Your task to perform on an android device: What's the news in Nepal? Image 0: 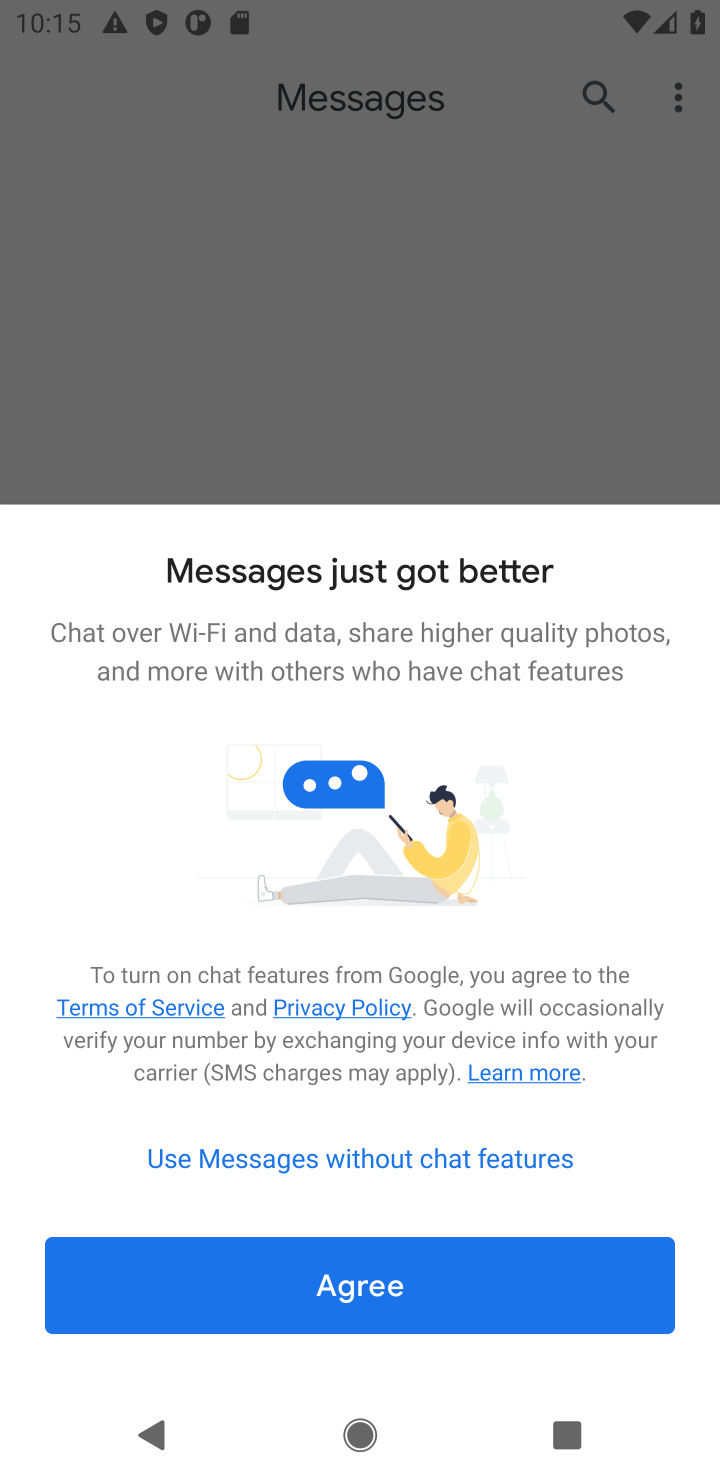
Step 0: press home button
Your task to perform on an android device: What's the news in Nepal? Image 1: 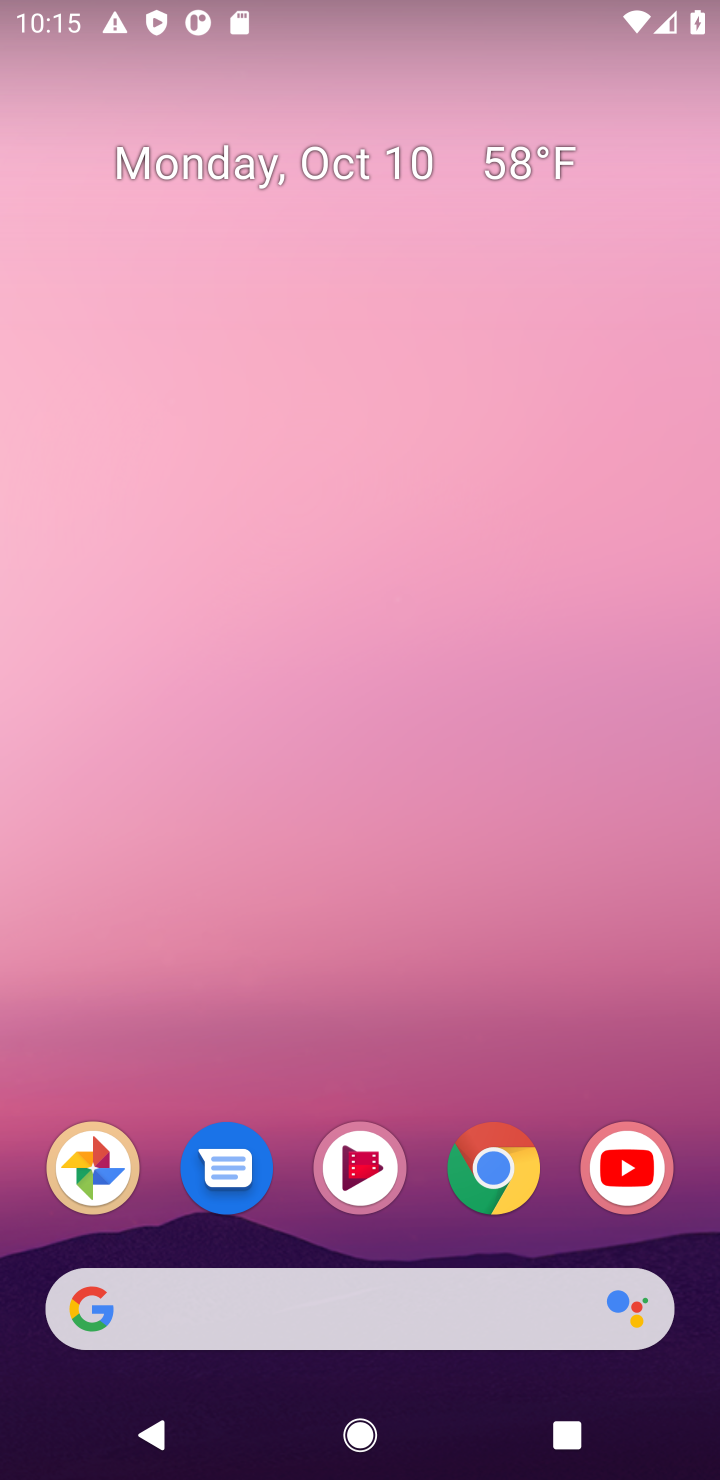
Step 1: click (268, 1326)
Your task to perform on an android device: What's the news in Nepal? Image 2: 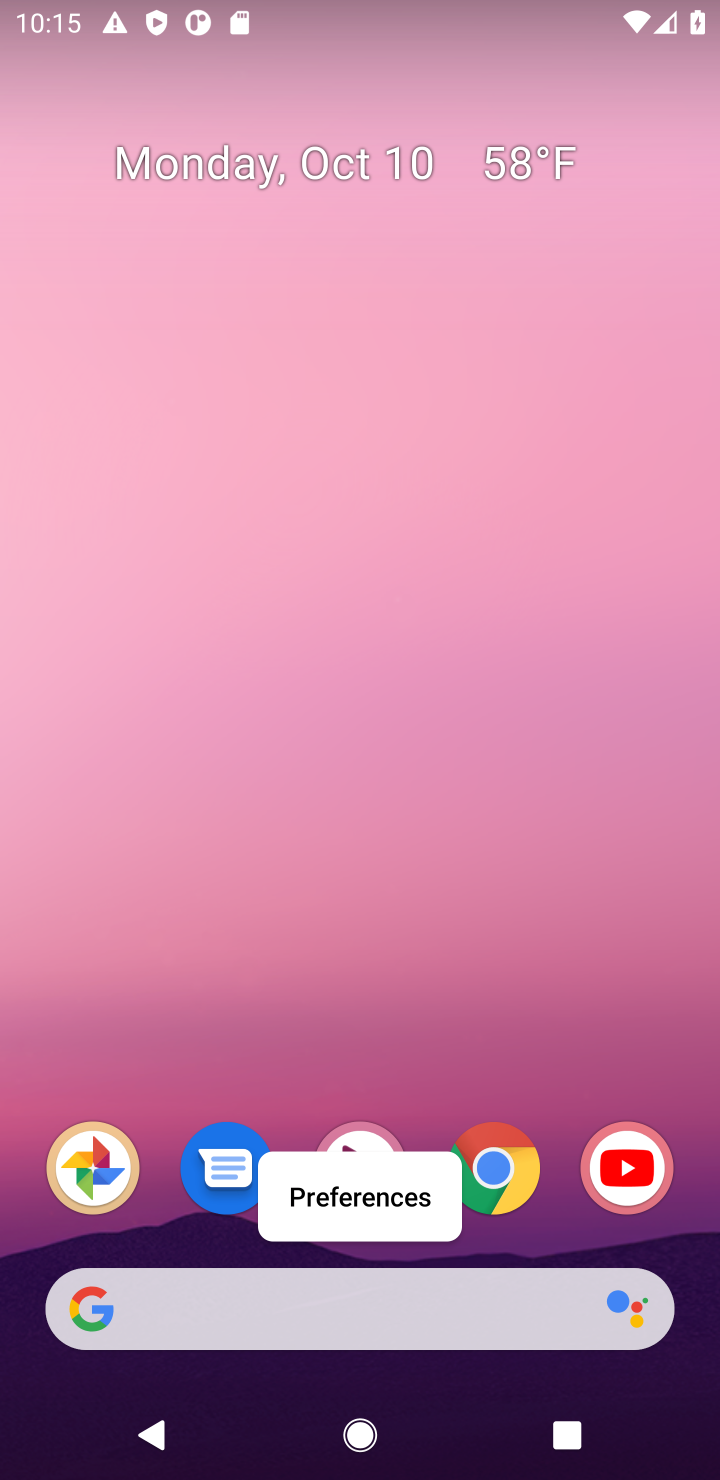
Step 2: click (327, 1289)
Your task to perform on an android device: What's the news in Nepal? Image 3: 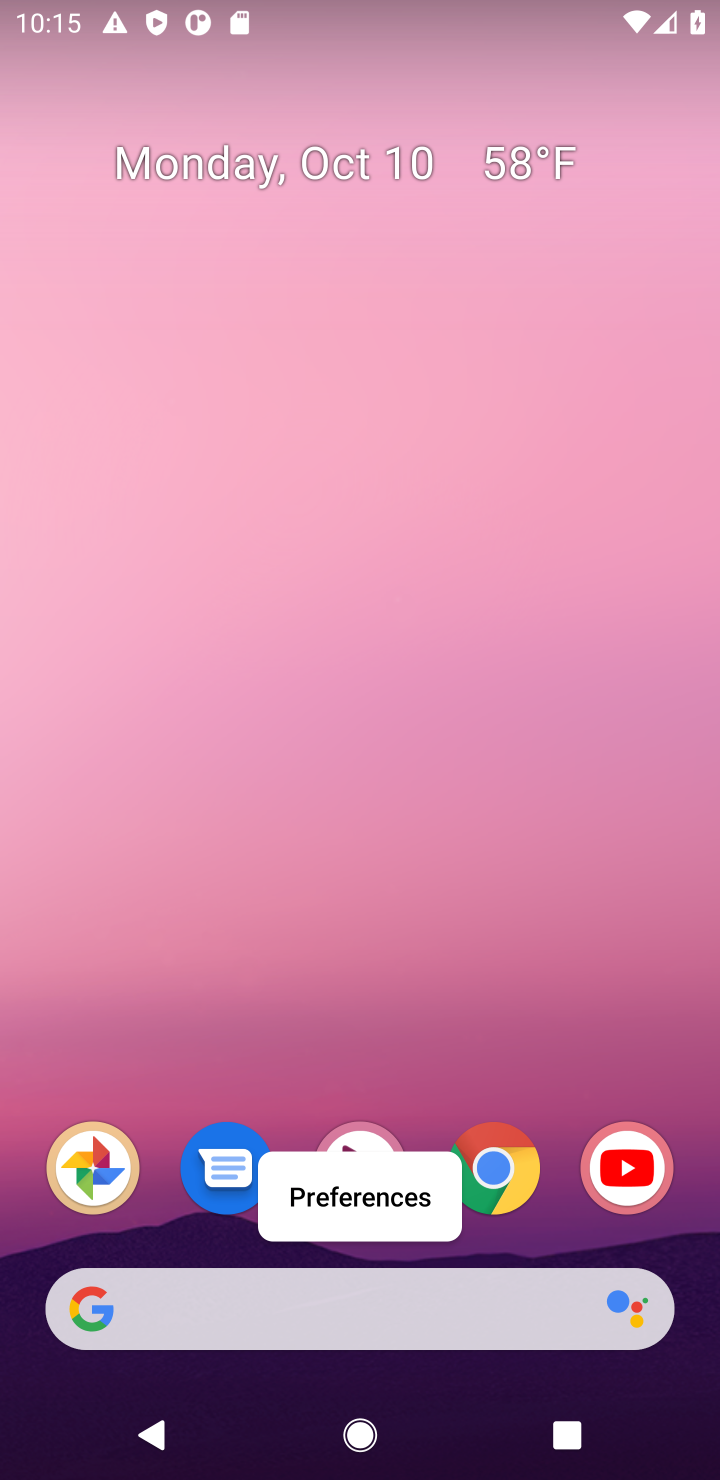
Step 3: click (315, 1287)
Your task to perform on an android device: What's the news in Nepal? Image 4: 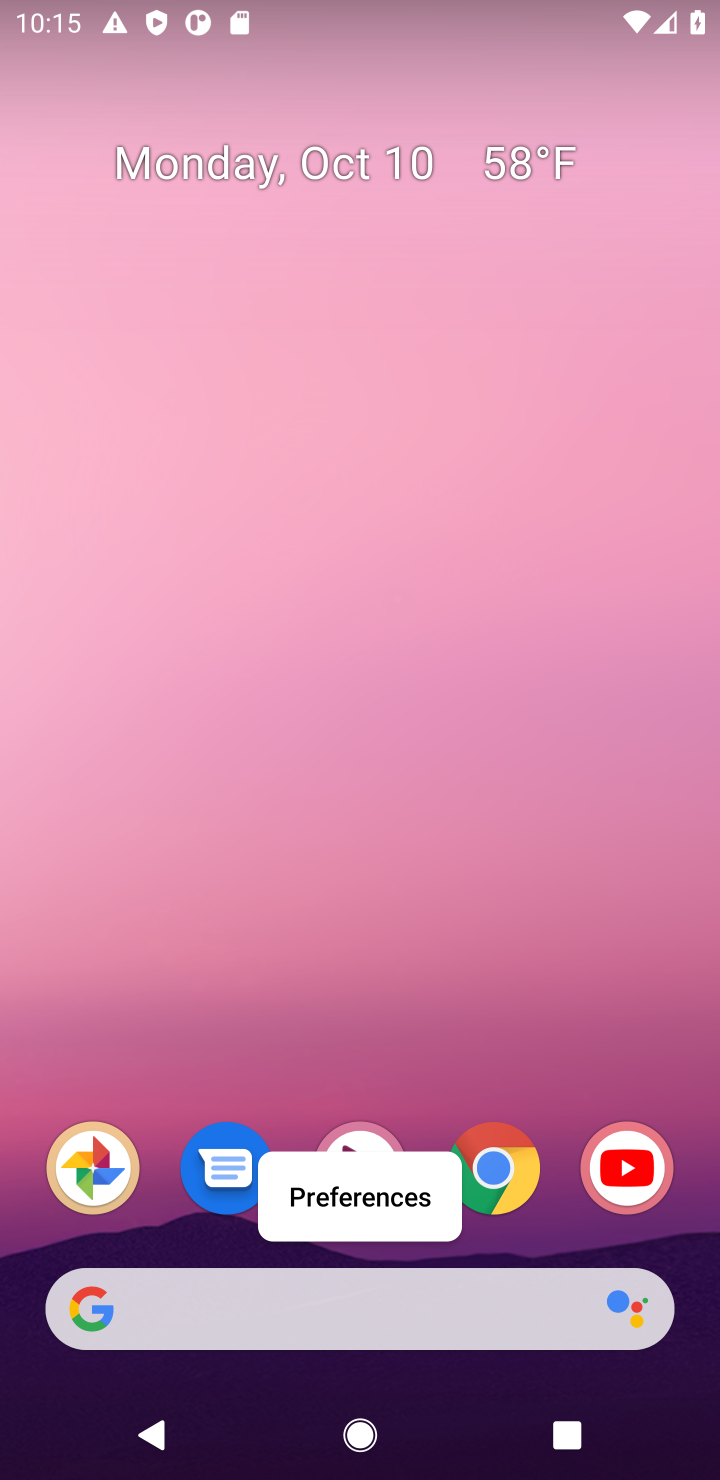
Step 4: click (325, 1318)
Your task to perform on an android device: What's the news in Nepal? Image 5: 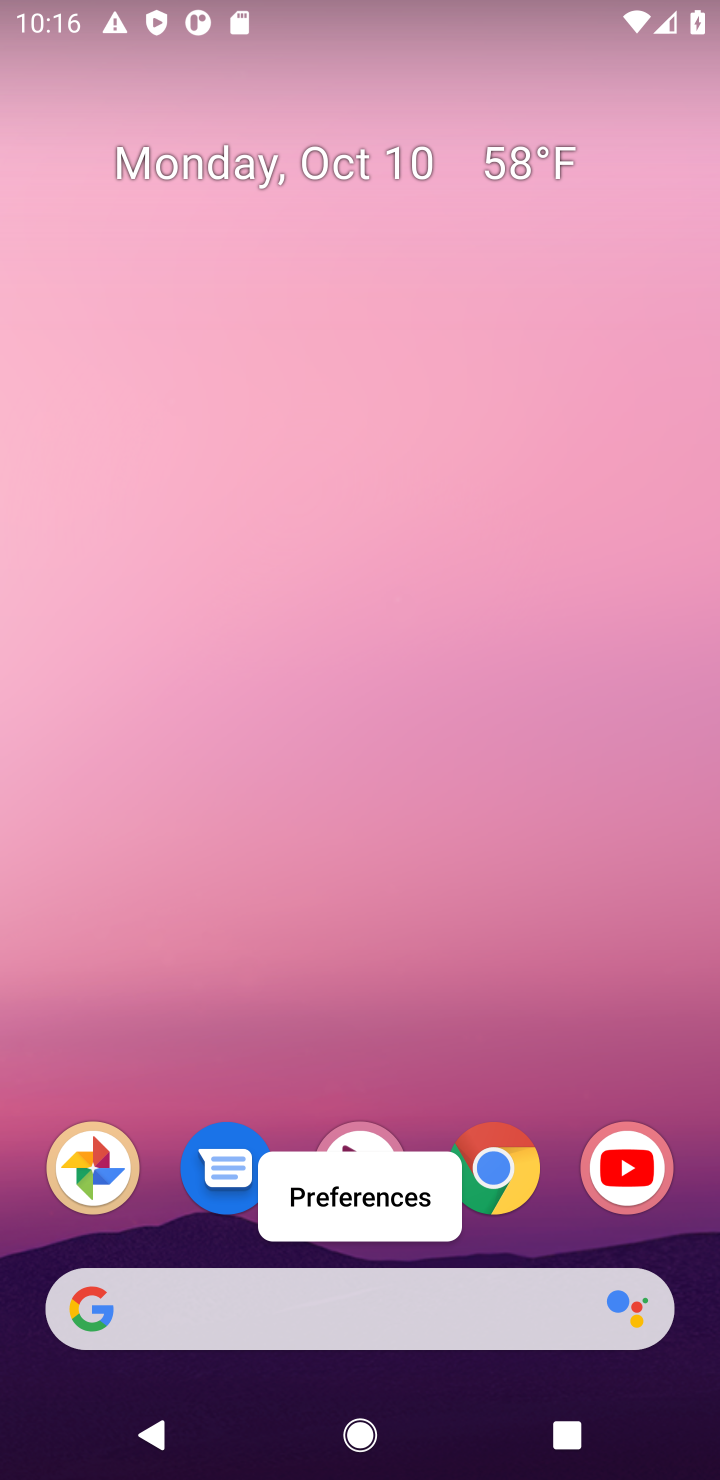
Step 5: click (325, 1298)
Your task to perform on an android device: What's the news in Nepal? Image 6: 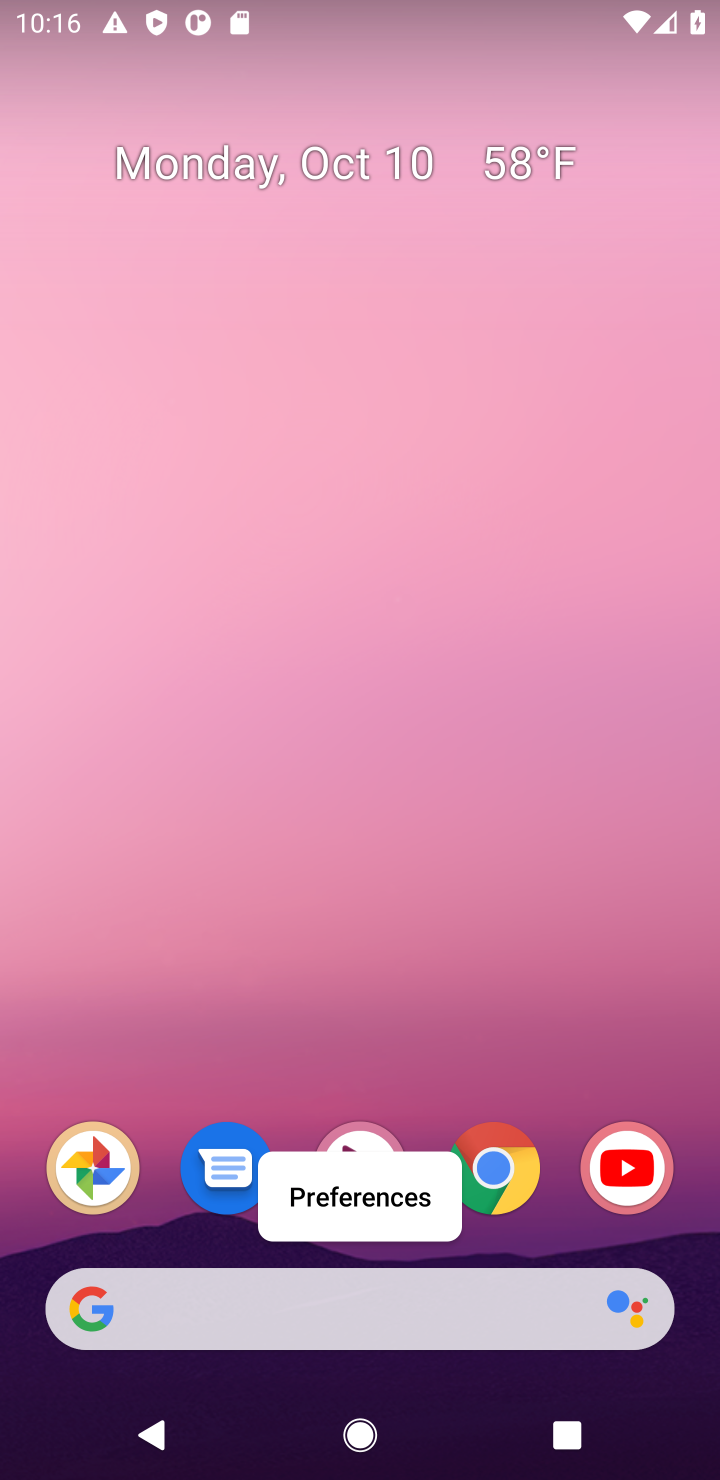
Step 6: click (325, 1298)
Your task to perform on an android device: What's the news in Nepal? Image 7: 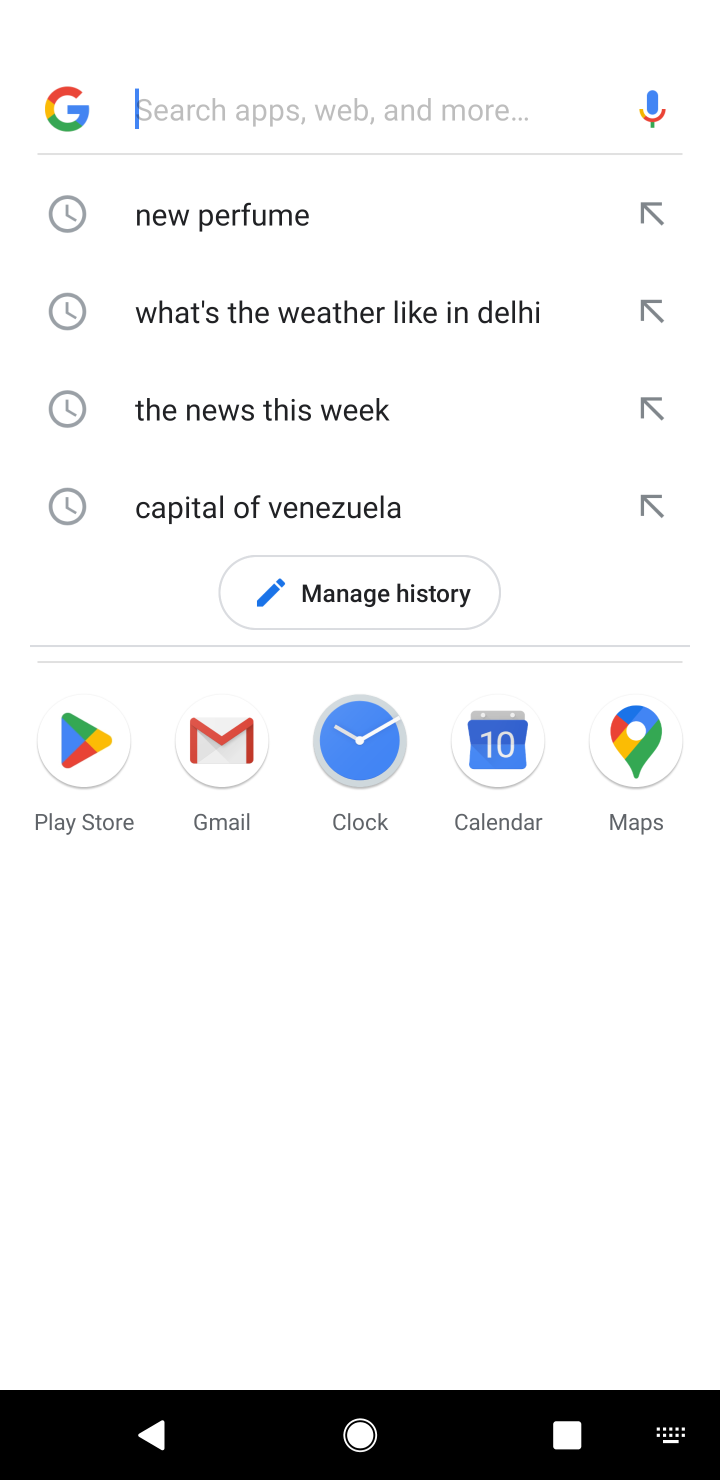
Step 7: type "news in Nepal"
Your task to perform on an android device: What's the news in Nepal? Image 8: 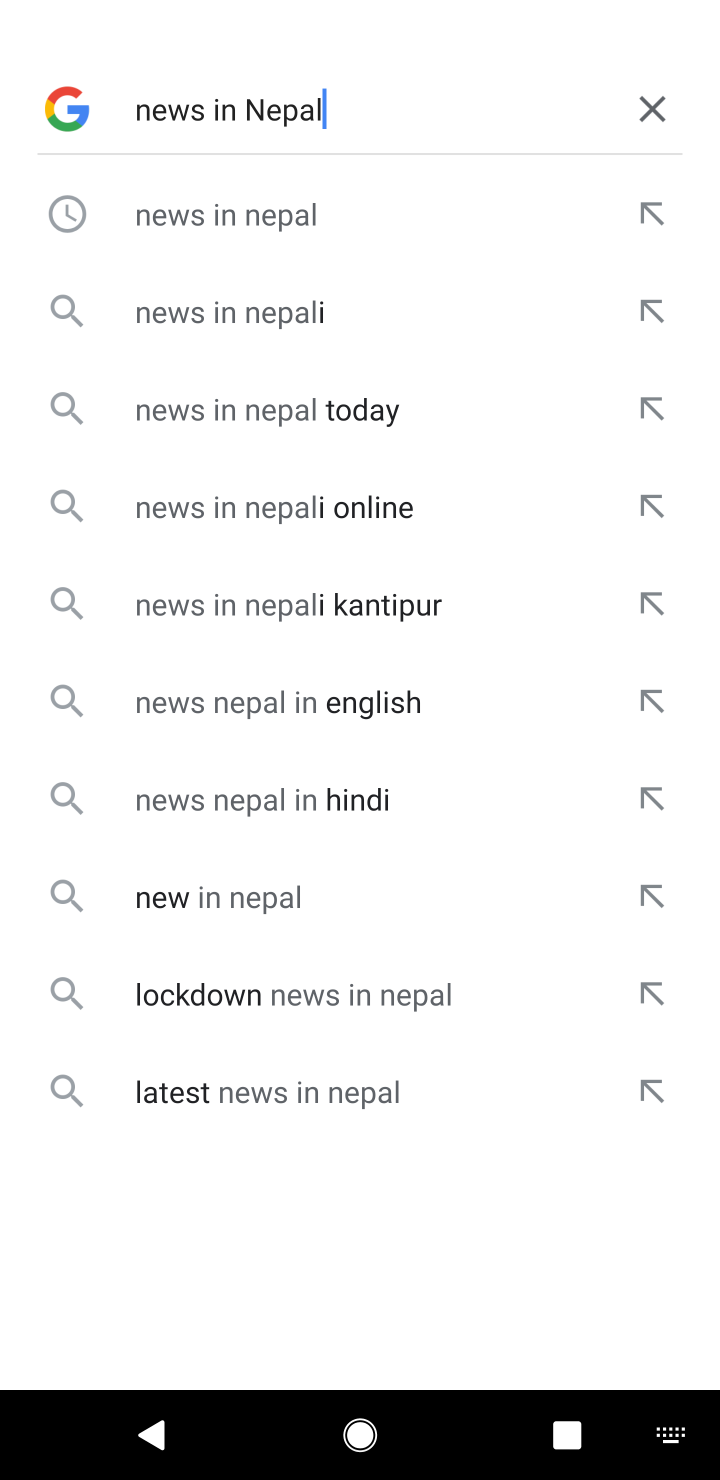
Step 8: click (263, 221)
Your task to perform on an android device: What's the news in Nepal? Image 9: 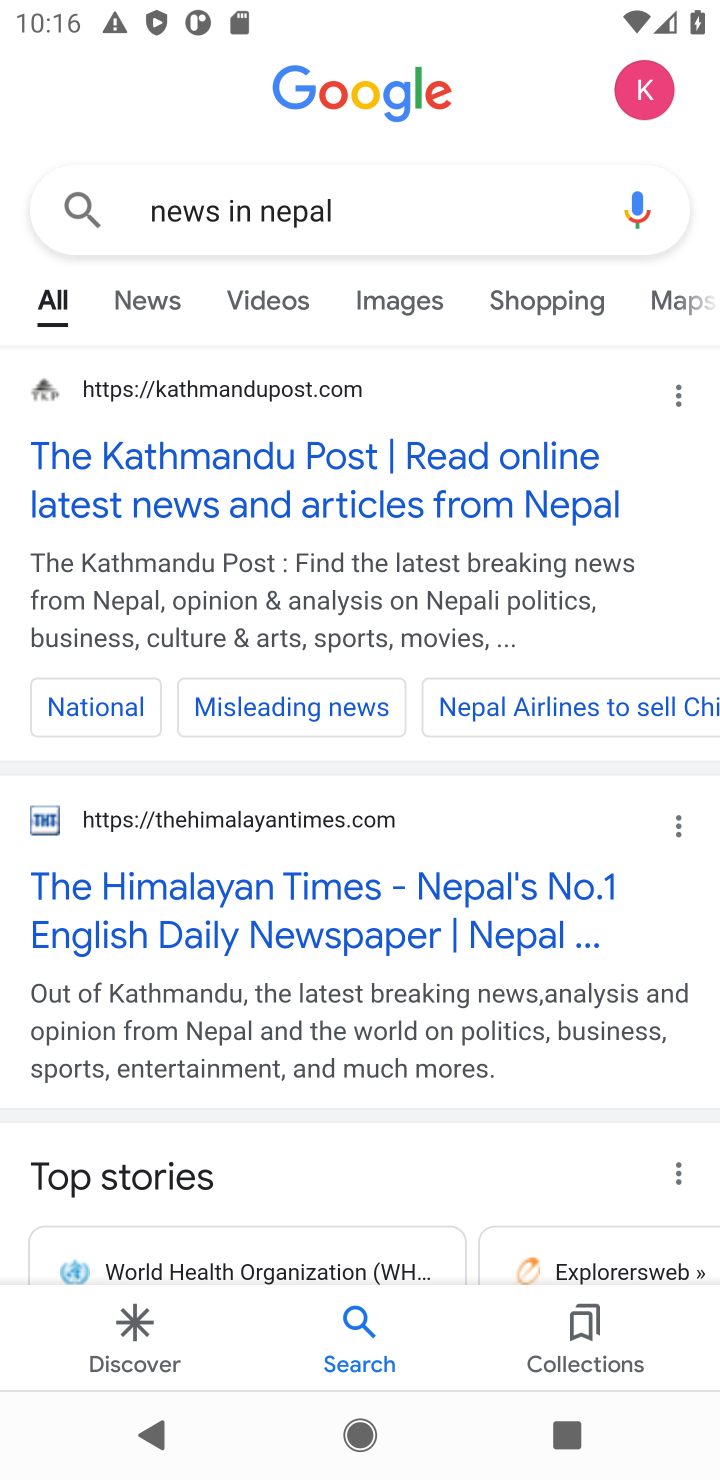
Step 9: click (124, 290)
Your task to perform on an android device: What's the news in Nepal? Image 10: 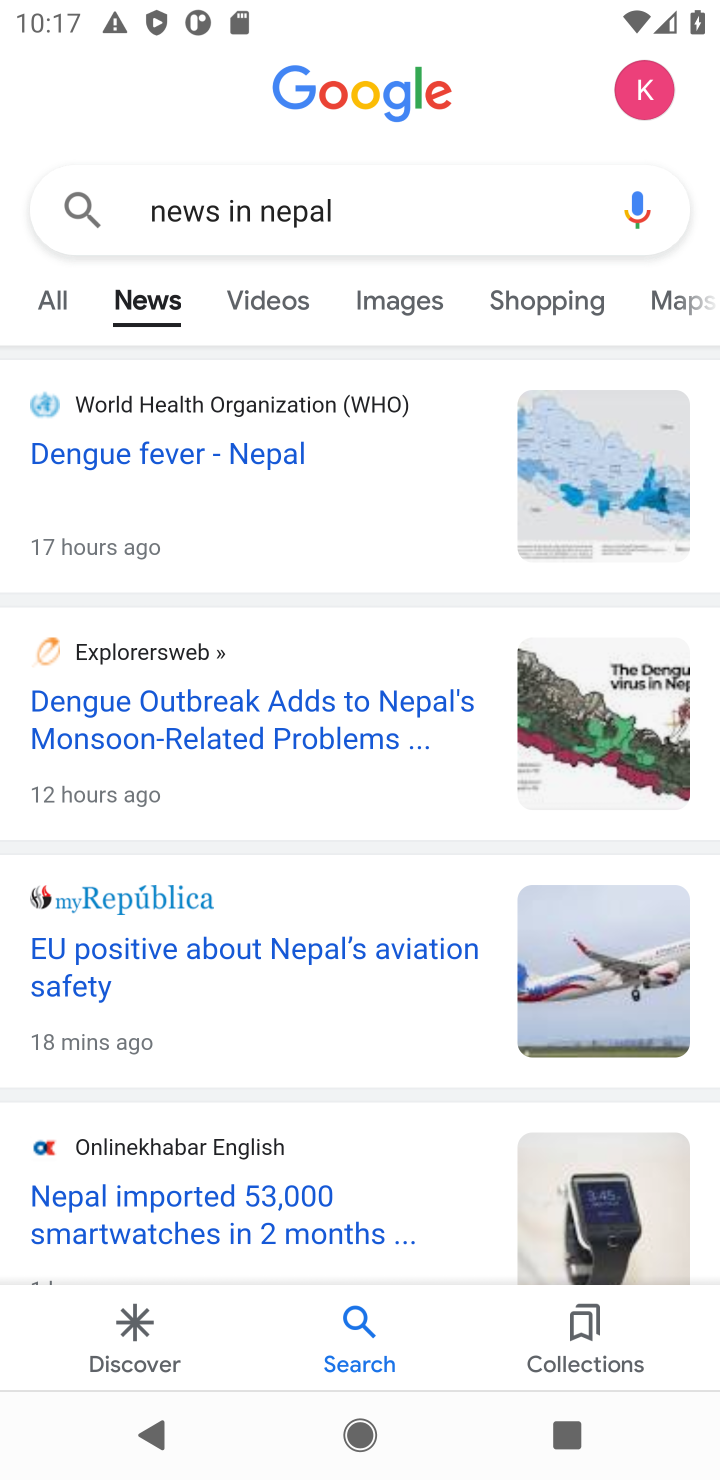
Step 10: task complete